Your task to perform on an android device: Open network settings Image 0: 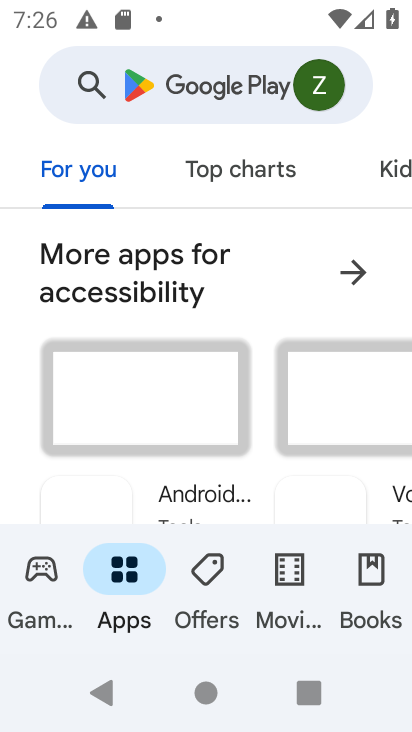
Step 0: press home button
Your task to perform on an android device: Open network settings Image 1: 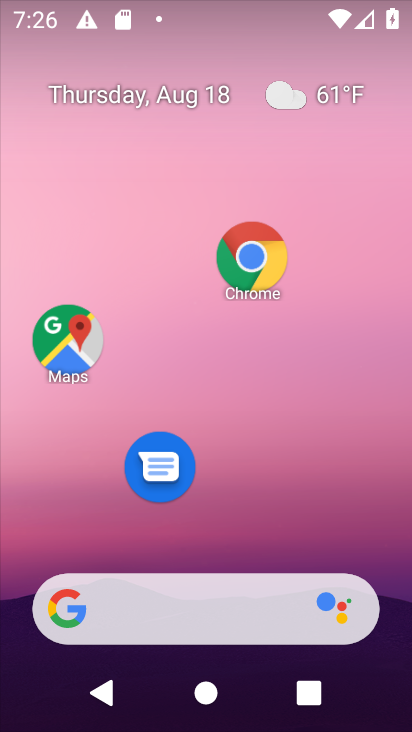
Step 1: drag from (282, 476) to (271, 94)
Your task to perform on an android device: Open network settings Image 2: 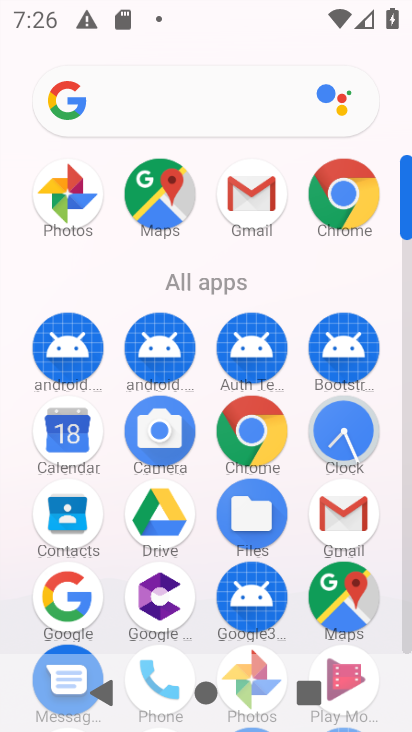
Step 2: click (315, 295)
Your task to perform on an android device: Open network settings Image 3: 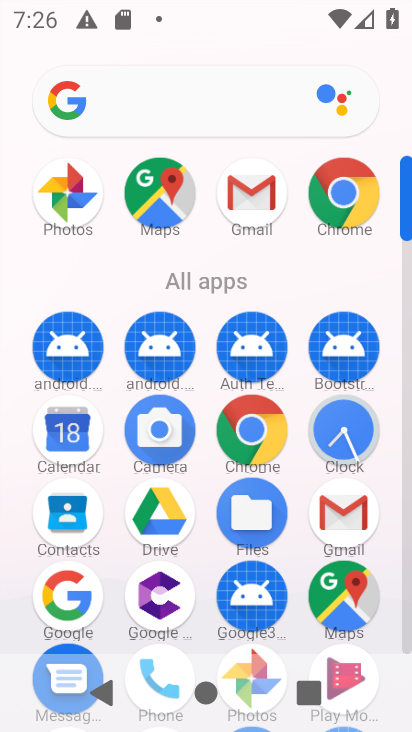
Step 3: task complete